Your task to perform on an android device: turn on notifications settings in the gmail app Image 0: 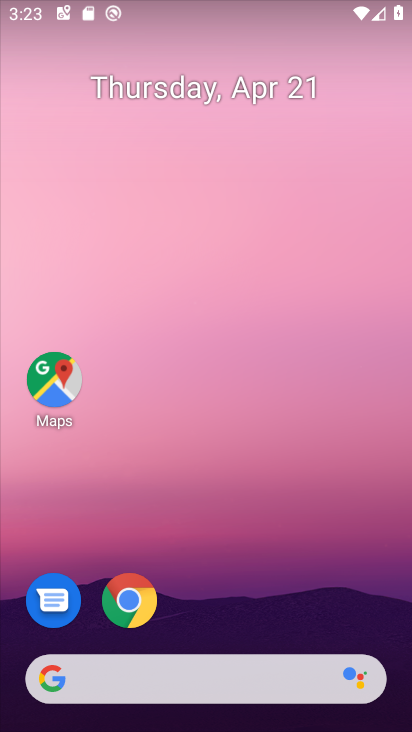
Step 0: drag from (216, 625) to (255, 25)
Your task to perform on an android device: turn on notifications settings in the gmail app Image 1: 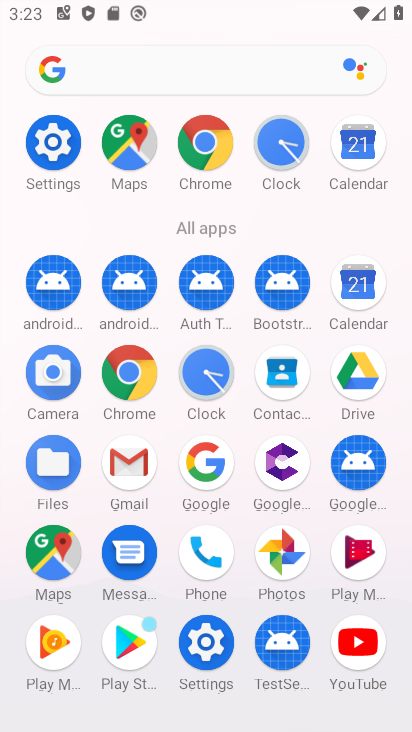
Step 1: click (133, 464)
Your task to perform on an android device: turn on notifications settings in the gmail app Image 2: 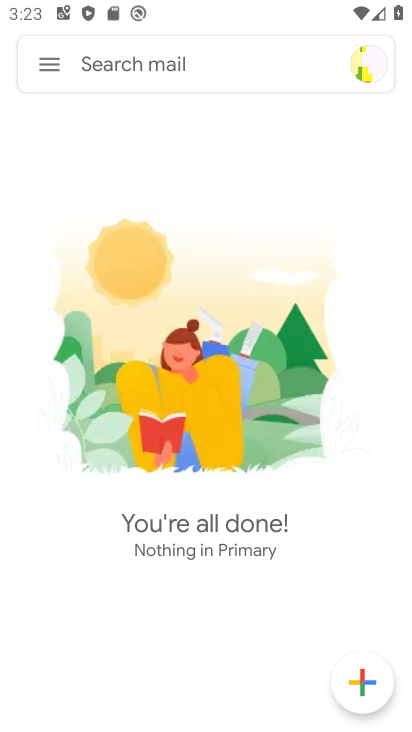
Step 2: click (51, 64)
Your task to perform on an android device: turn on notifications settings in the gmail app Image 3: 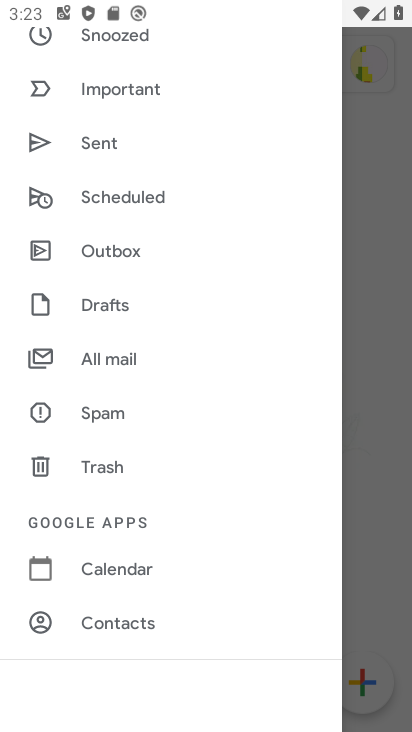
Step 3: drag from (167, 458) to (241, 313)
Your task to perform on an android device: turn on notifications settings in the gmail app Image 4: 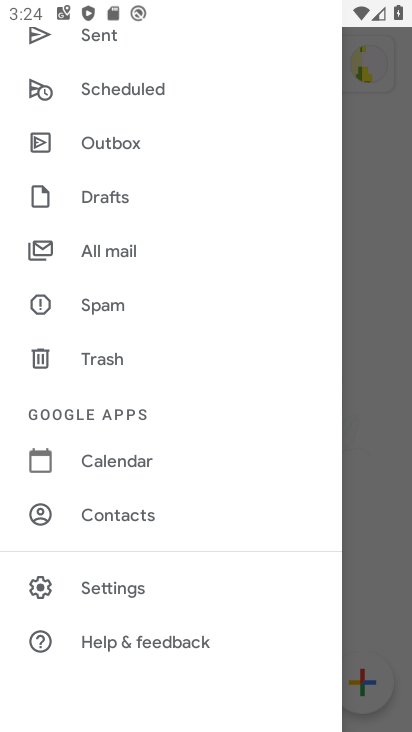
Step 4: click (129, 589)
Your task to perform on an android device: turn on notifications settings in the gmail app Image 5: 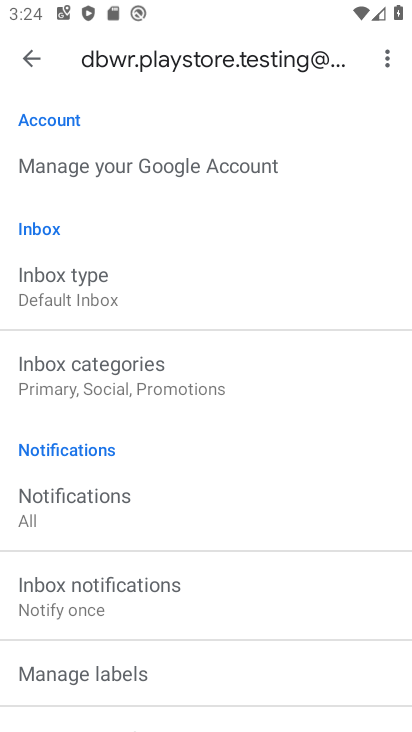
Step 5: drag from (191, 676) to (223, 521)
Your task to perform on an android device: turn on notifications settings in the gmail app Image 6: 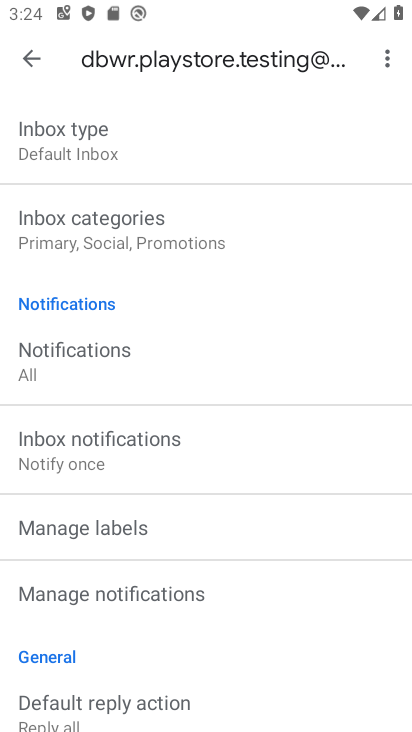
Step 6: click (161, 596)
Your task to perform on an android device: turn on notifications settings in the gmail app Image 7: 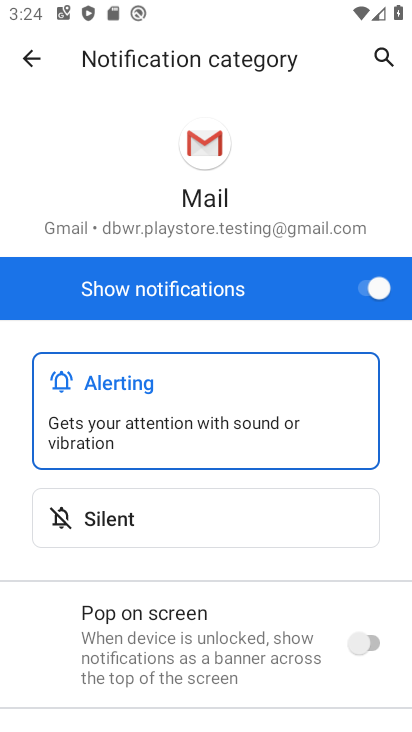
Step 7: drag from (262, 619) to (340, 379)
Your task to perform on an android device: turn on notifications settings in the gmail app Image 8: 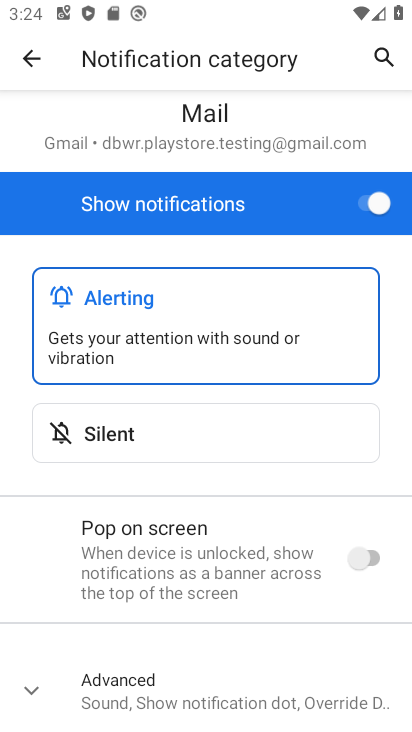
Step 8: click (294, 693)
Your task to perform on an android device: turn on notifications settings in the gmail app Image 9: 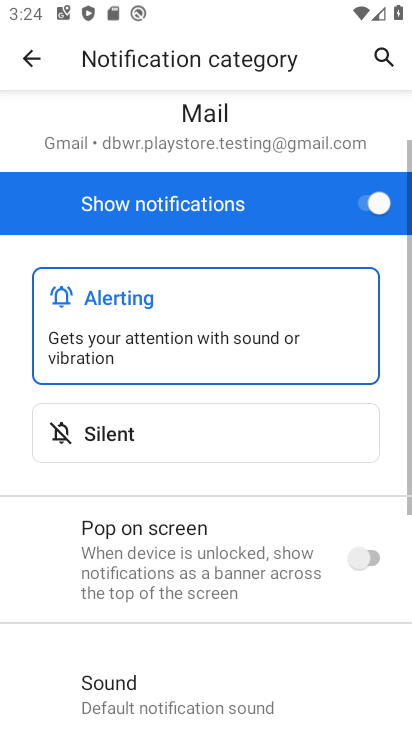
Step 9: task complete